Your task to perform on an android device: Open Google Chrome Image 0: 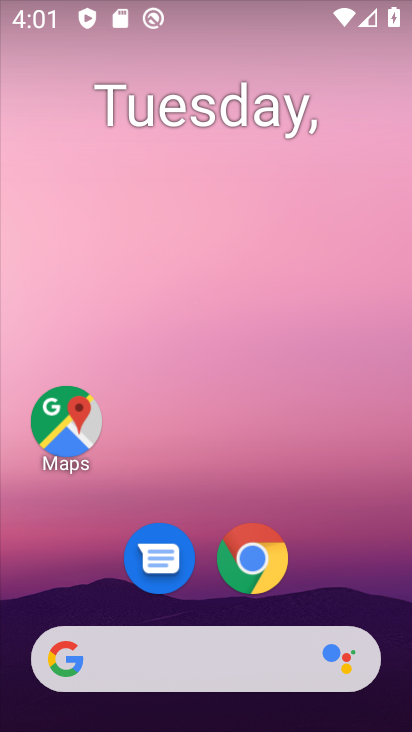
Step 0: click (265, 556)
Your task to perform on an android device: Open Google Chrome Image 1: 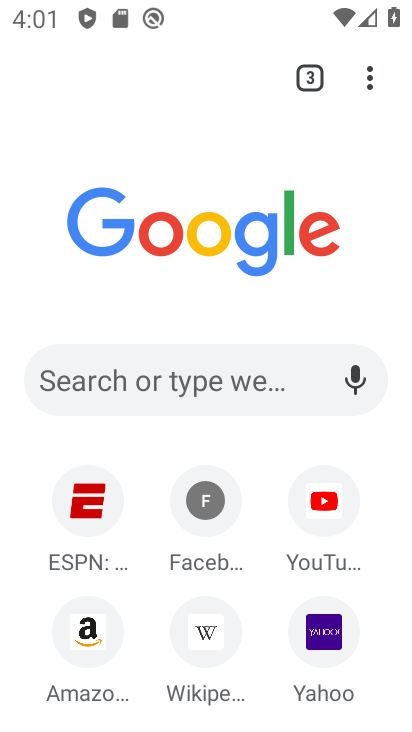
Step 1: task complete